Your task to perform on an android device: add a contact in the contacts app Image 0: 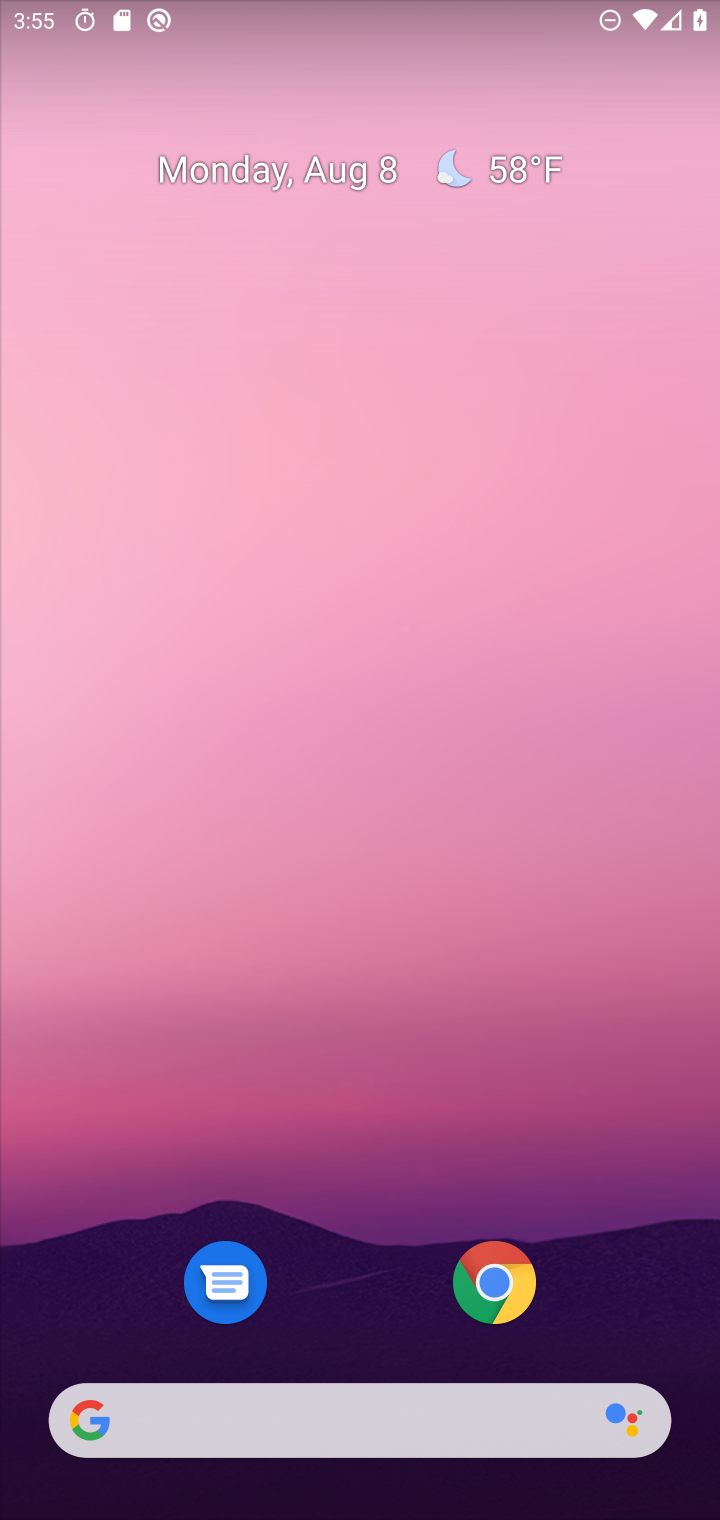
Step 0: drag from (491, 646) to (573, 146)
Your task to perform on an android device: add a contact in the contacts app Image 1: 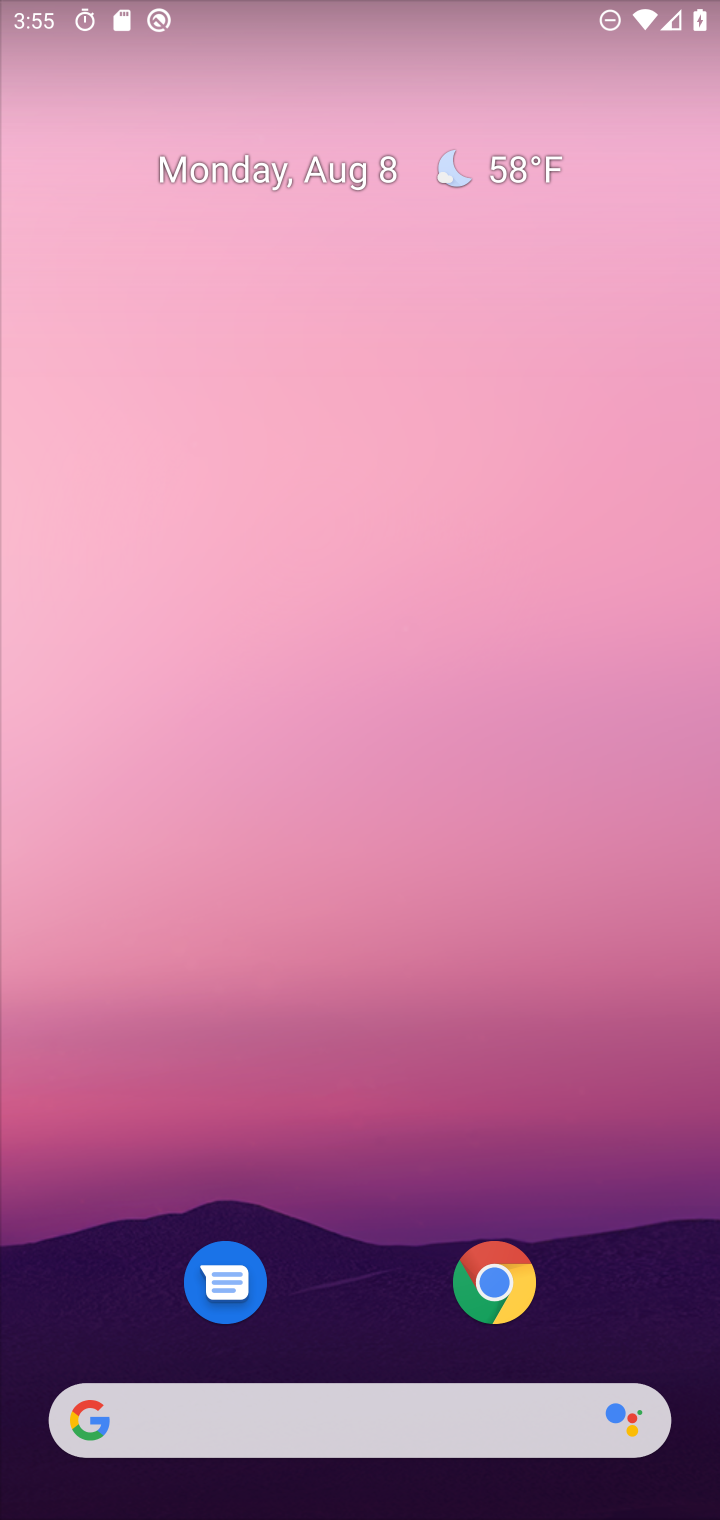
Step 1: drag from (363, 771) to (429, 61)
Your task to perform on an android device: add a contact in the contacts app Image 2: 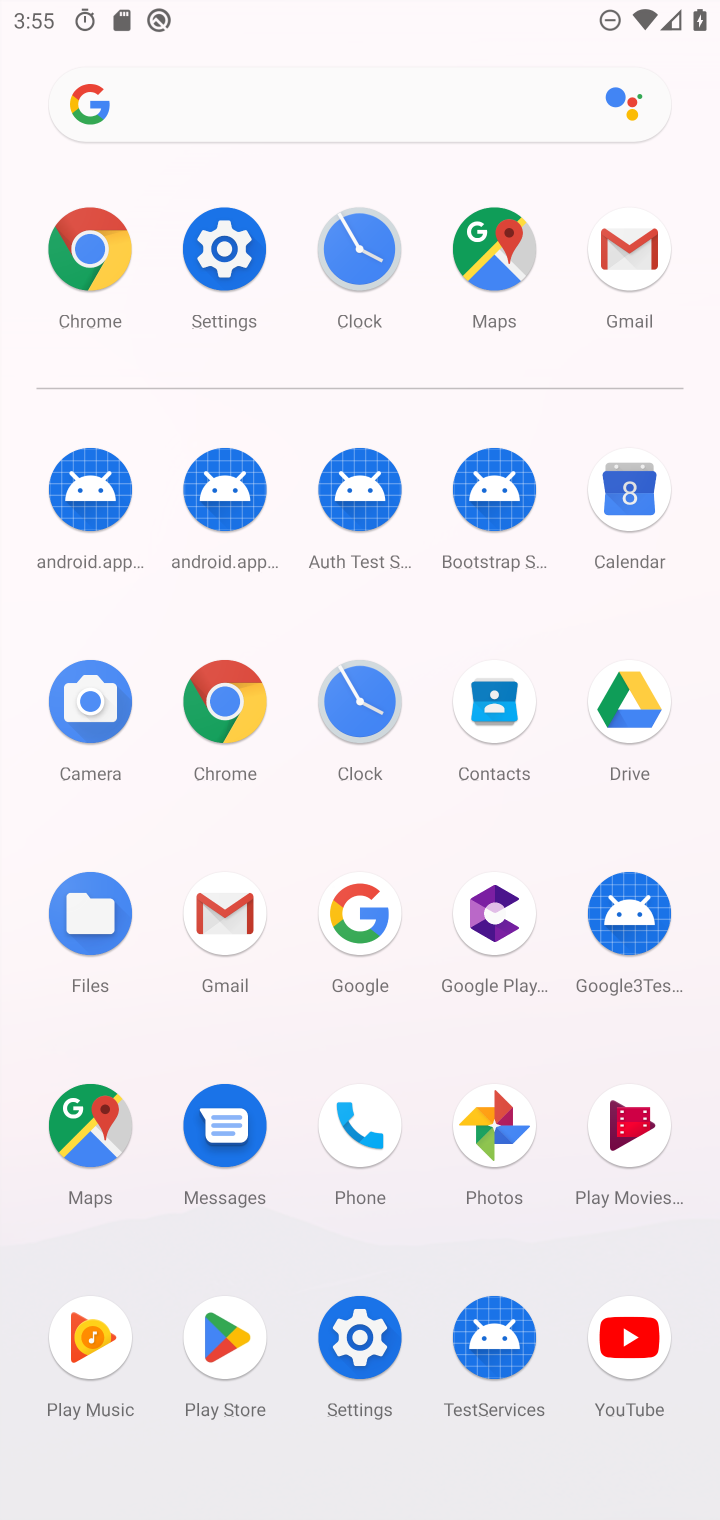
Step 2: click (505, 693)
Your task to perform on an android device: add a contact in the contacts app Image 3: 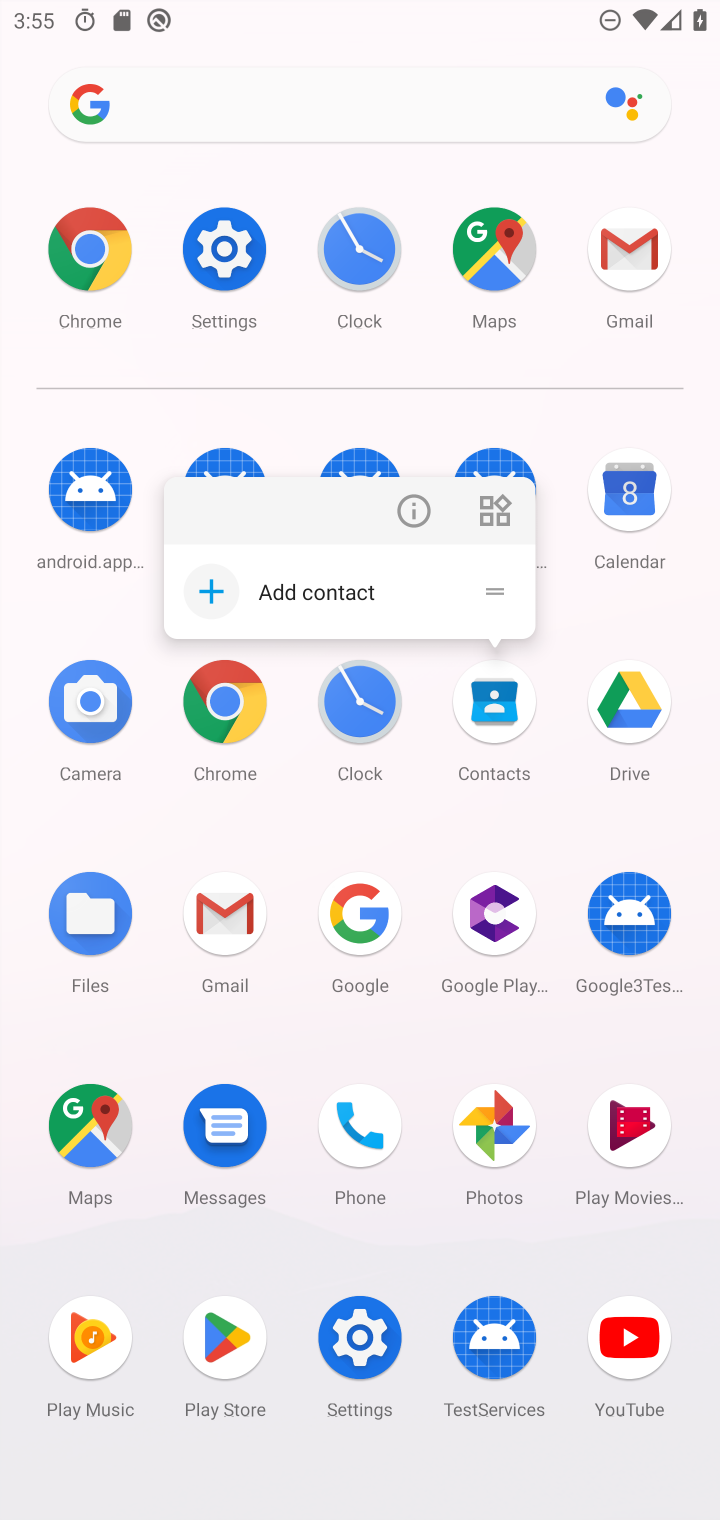
Step 3: click (505, 691)
Your task to perform on an android device: add a contact in the contacts app Image 4: 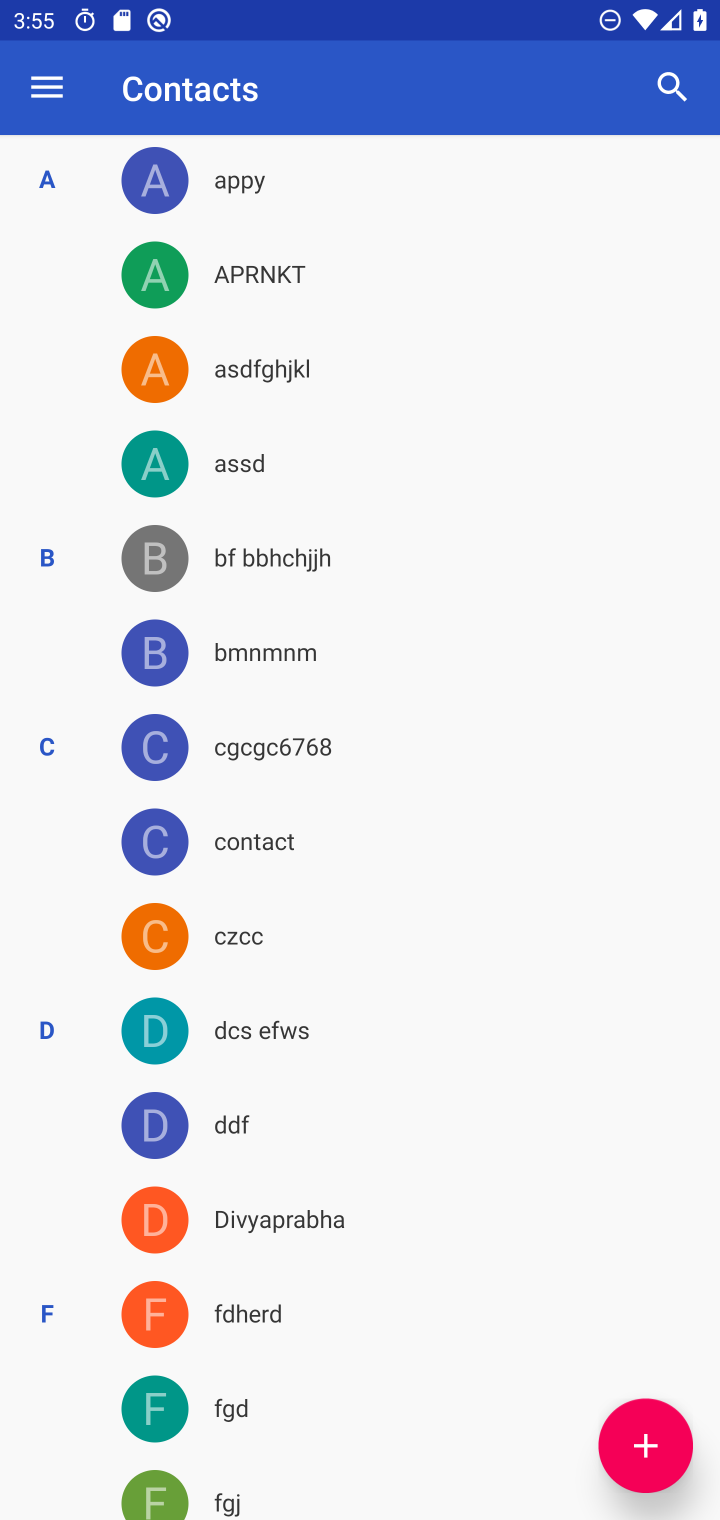
Step 4: click (659, 1420)
Your task to perform on an android device: add a contact in the contacts app Image 5: 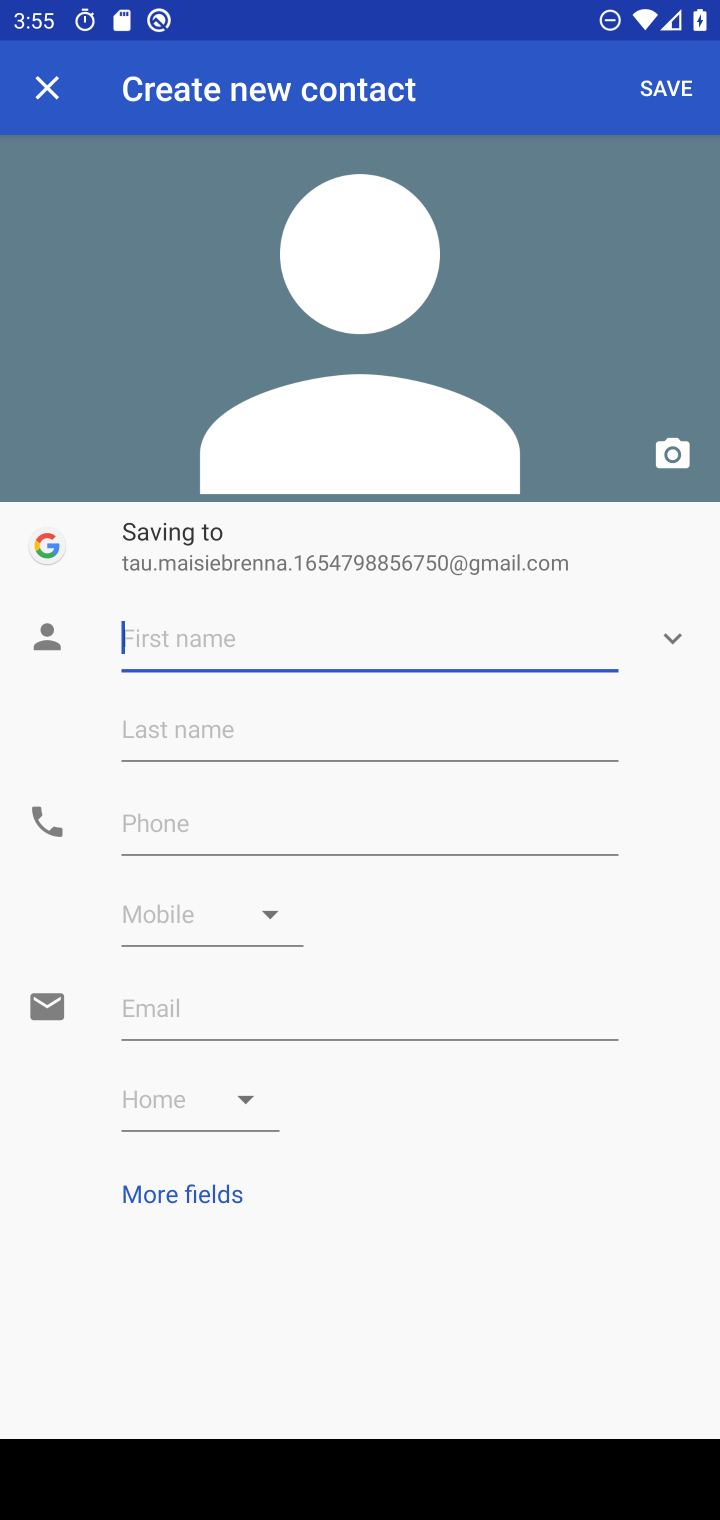
Step 5: type "87"
Your task to perform on an android device: add a contact in the contacts app Image 6: 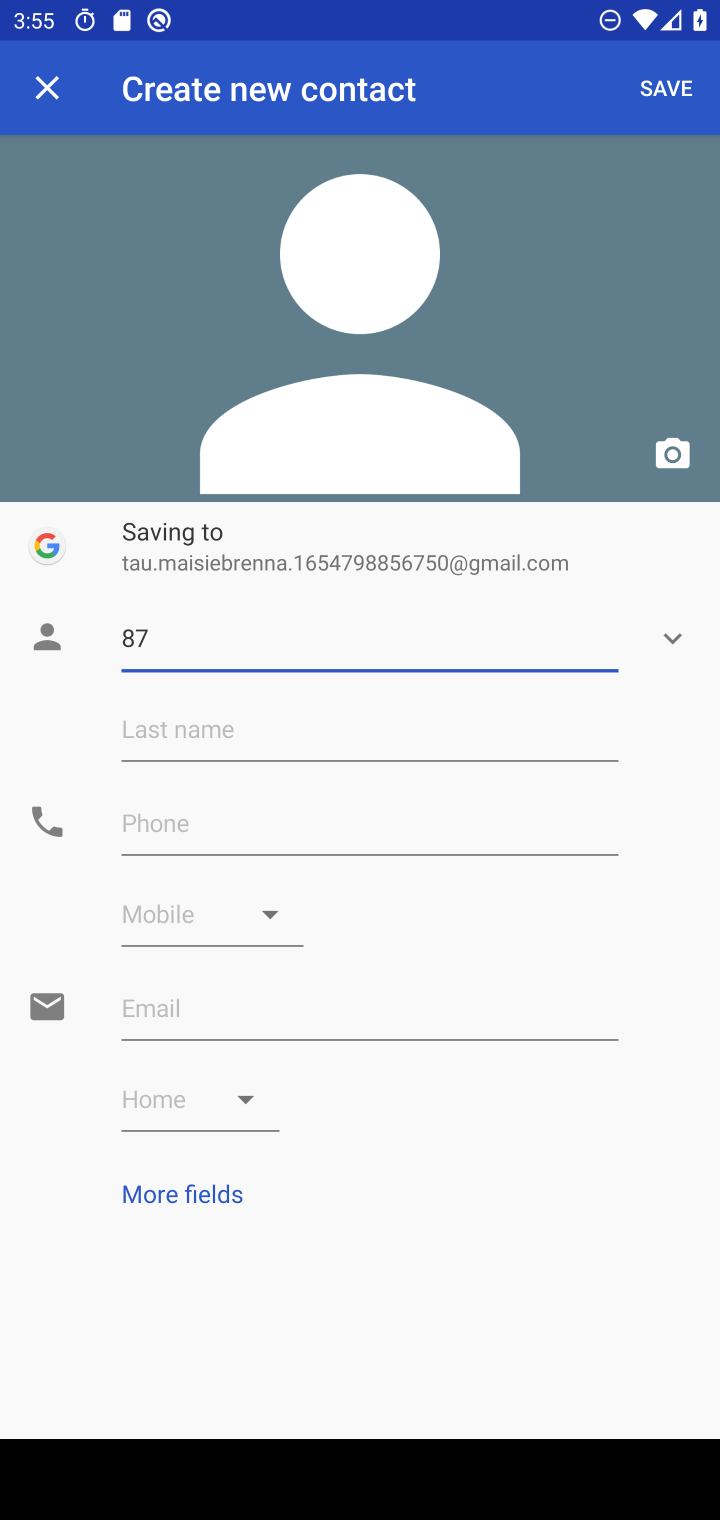
Step 6: click (653, 69)
Your task to perform on an android device: add a contact in the contacts app Image 7: 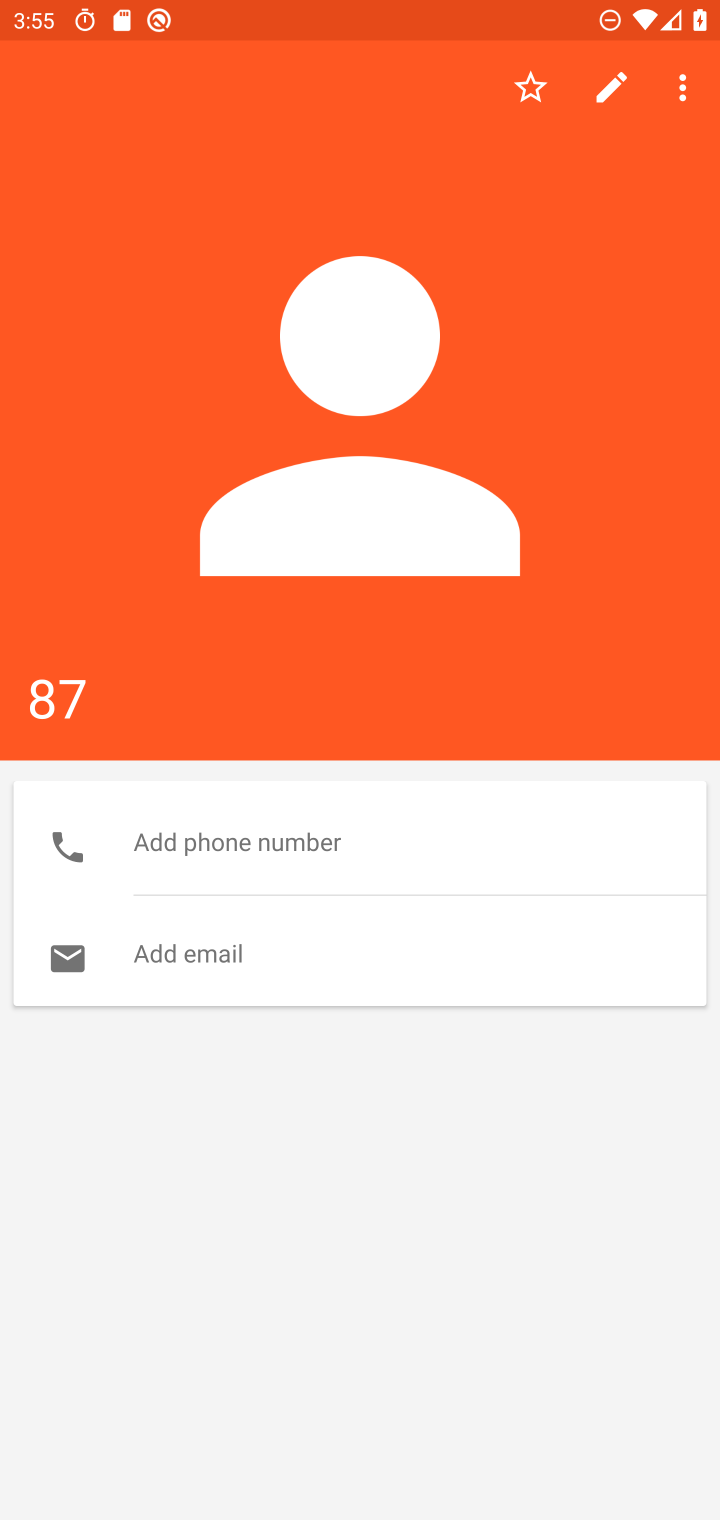
Step 7: task complete